Your task to perform on an android device: Search for sushi restaurants on Maps Image 0: 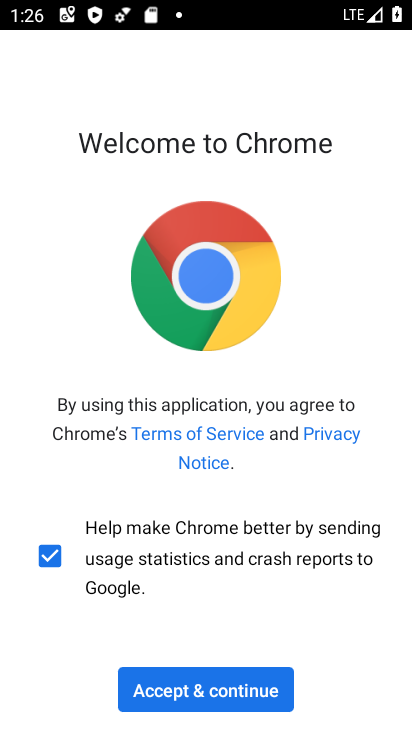
Step 0: press home button
Your task to perform on an android device: Search for sushi restaurants on Maps Image 1: 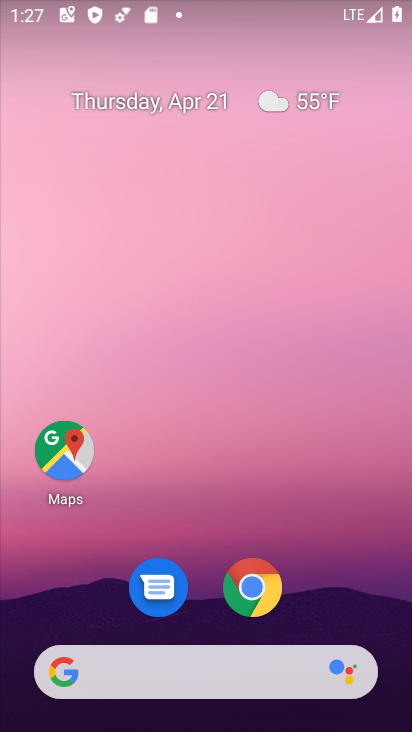
Step 1: click (66, 447)
Your task to perform on an android device: Search for sushi restaurants on Maps Image 2: 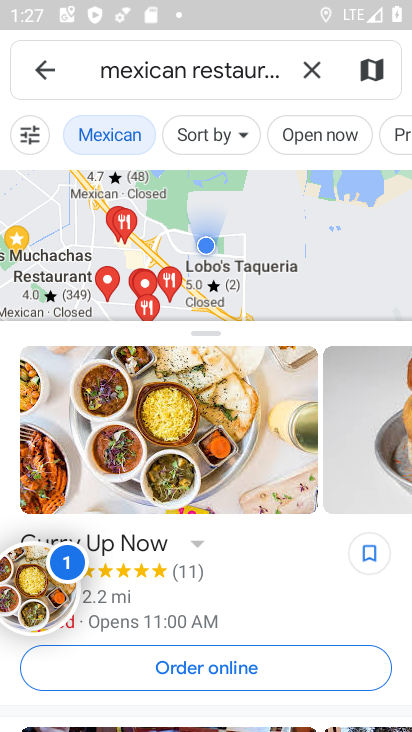
Step 2: click (305, 70)
Your task to perform on an android device: Search for sushi restaurants on Maps Image 3: 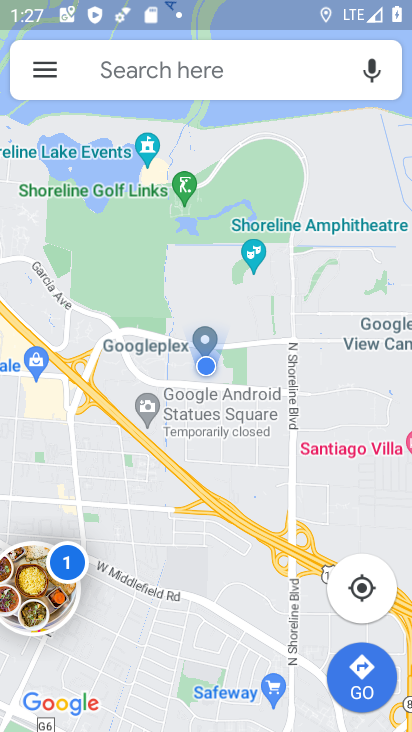
Step 3: click (164, 59)
Your task to perform on an android device: Search for sushi restaurants on Maps Image 4: 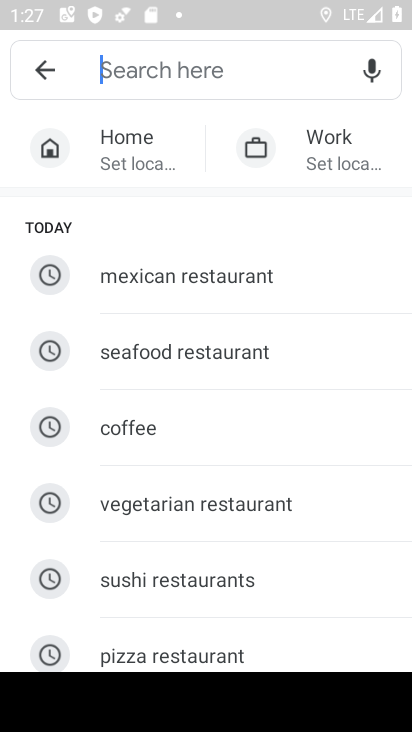
Step 4: type "sushi restaurants"
Your task to perform on an android device: Search for sushi restaurants on Maps Image 5: 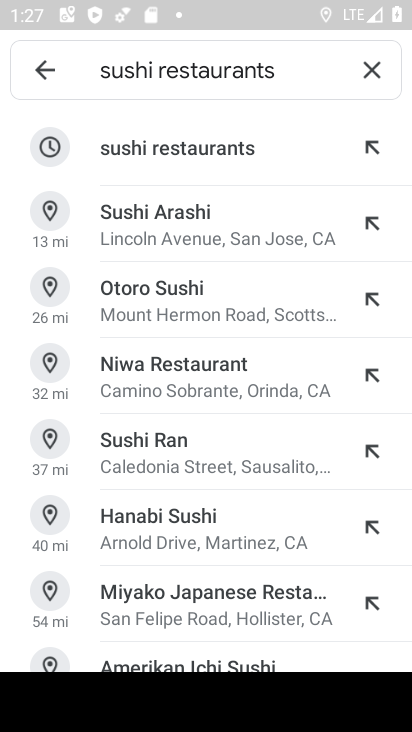
Step 5: click (141, 156)
Your task to perform on an android device: Search for sushi restaurants on Maps Image 6: 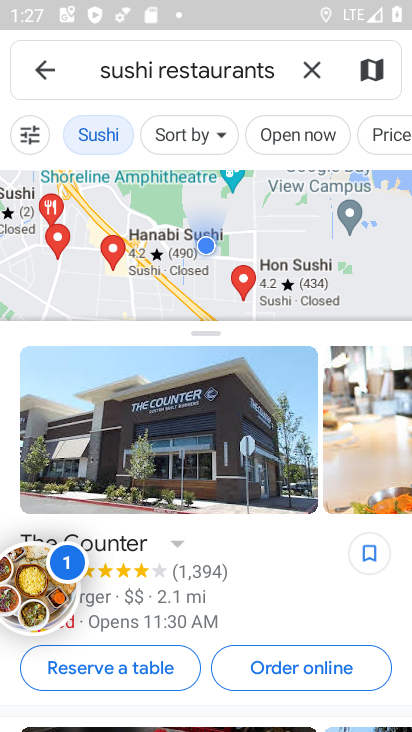
Step 6: task complete